Your task to perform on an android device: allow notifications from all sites in the chrome app Image 0: 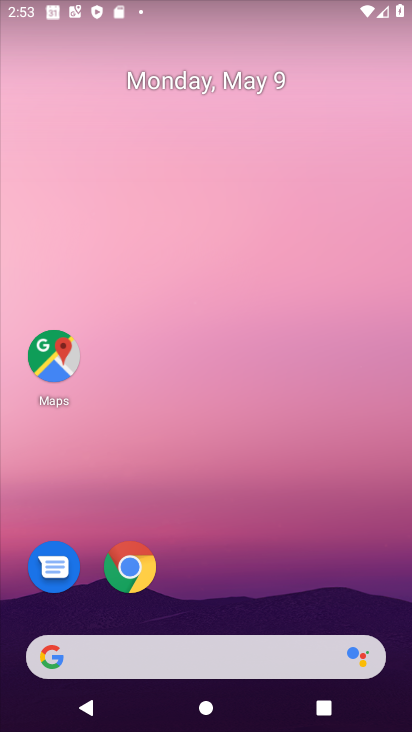
Step 0: click (133, 560)
Your task to perform on an android device: allow notifications from all sites in the chrome app Image 1: 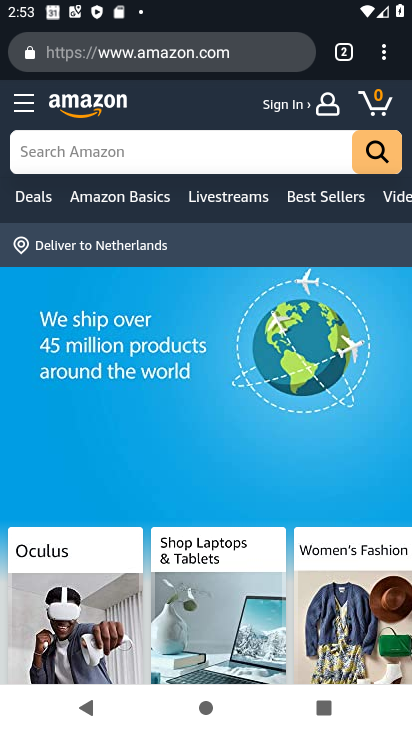
Step 1: click (381, 54)
Your task to perform on an android device: allow notifications from all sites in the chrome app Image 2: 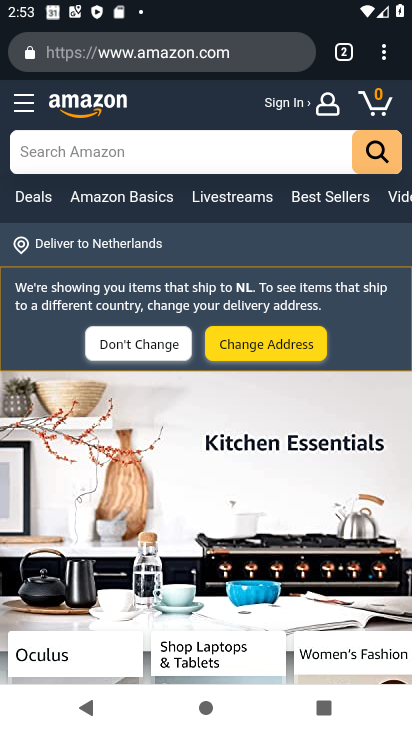
Step 2: click (383, 46)
Your task to perform on an android device: allow notifications from all sites in the chrome app Image 3: 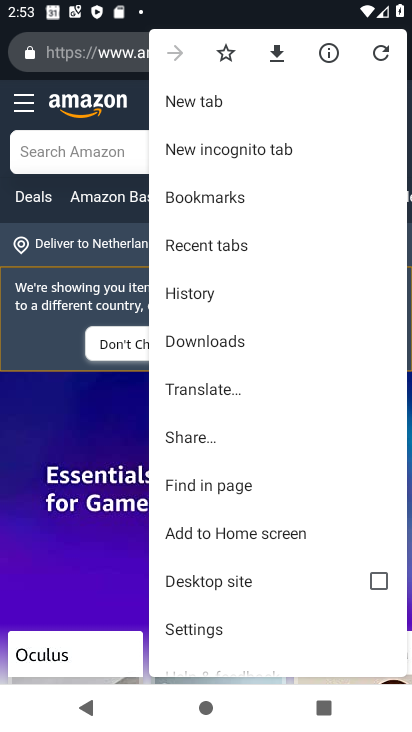
Step 3: click (212, 636)
Your task to perform on an android device: allow notifications from all sites in the chrome app Image 4: 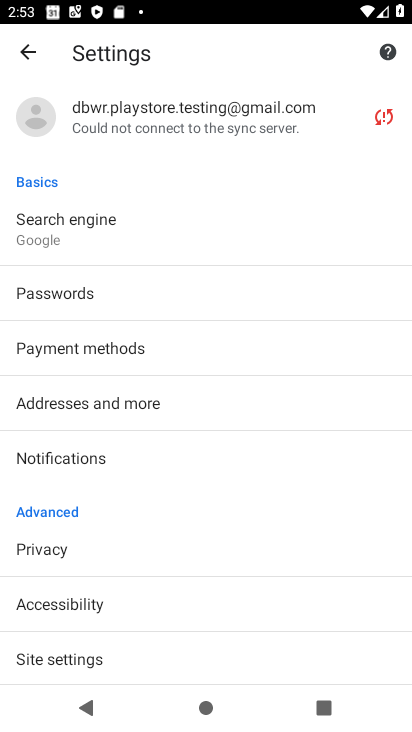
Step 4: drag from (212, 637) to (218, 516)
Your task to perform on an android device: allow notifications from all sites in the chrome app Image 5: 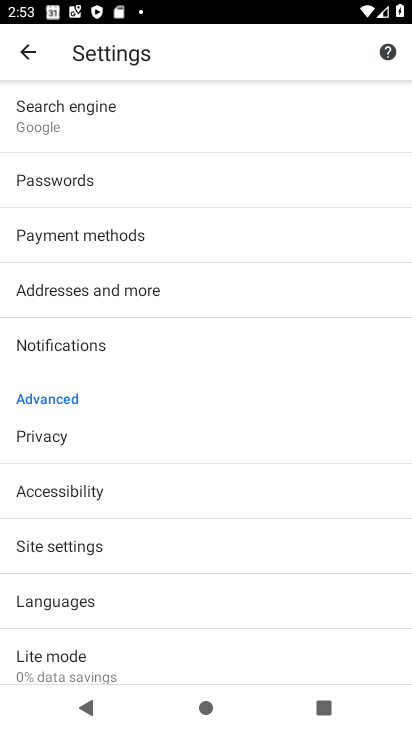
Step 5: click (151, 543)
Your task to perform on an android device: allow notifications from all sites in the chrome app Image 6: 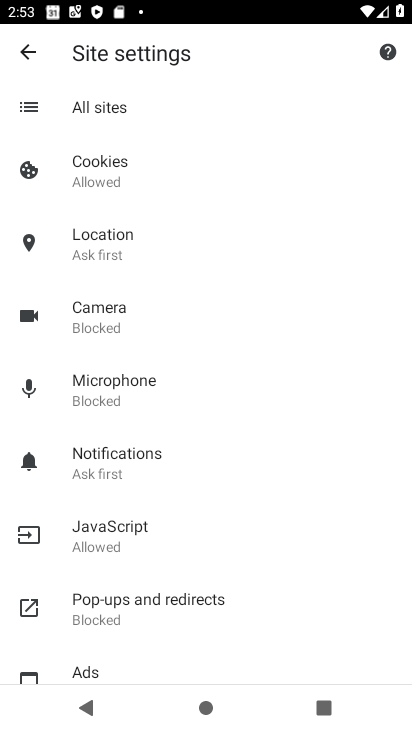
Step 6: click (126, 165)
Your task to perform on an android device: allow notifications from all sites in the chrome app Image 7: 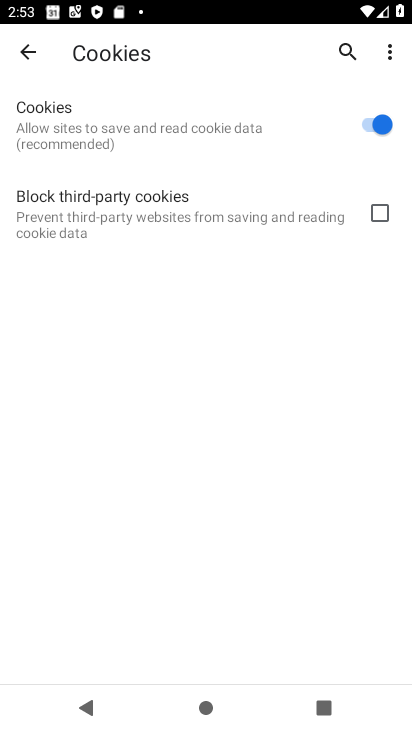
Step 7: task complete